Your task to perform on an android device: Search for the best custom wallets on Etsy. Image 0: 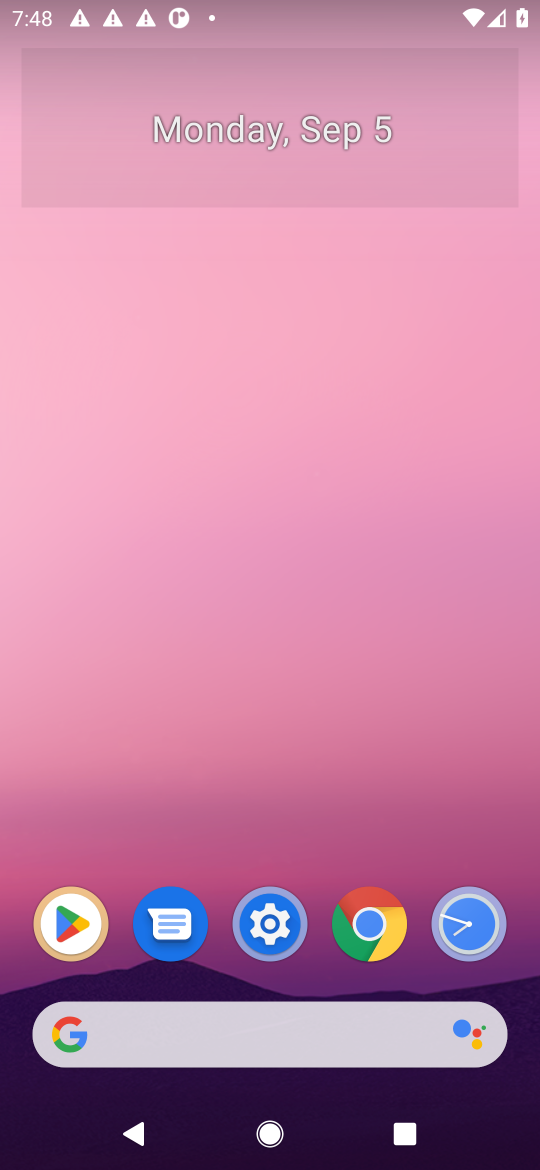
Step 0: press home button
Your task to perform on an android device: Search for the best custom wallets on Etsy. Image 1: 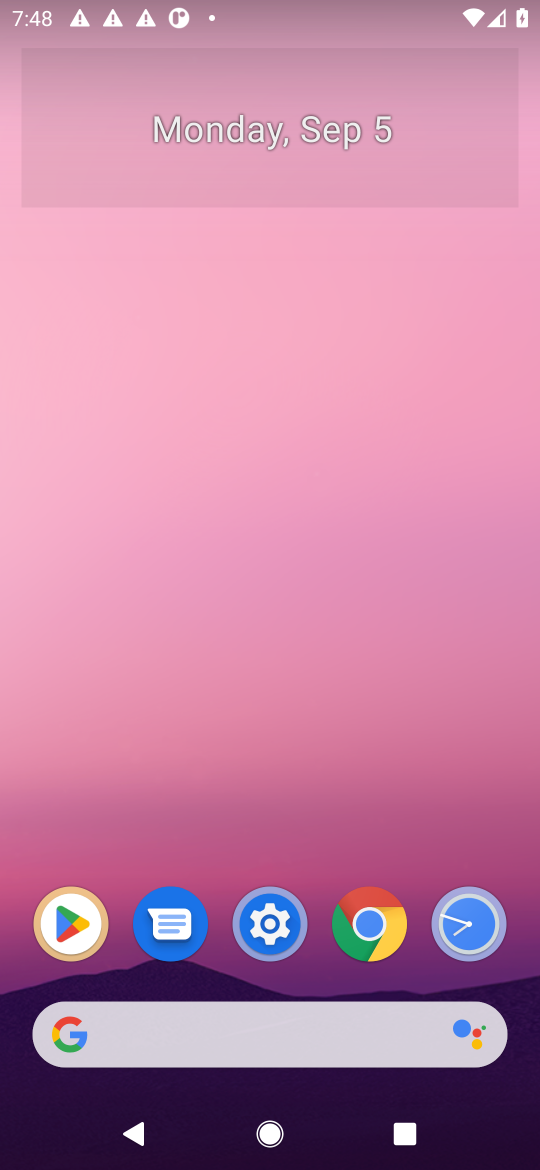
Step 1: click (332, 1037)
Your task to perform on an android device: Search for the best custom wallets on Etsy. Image 2: 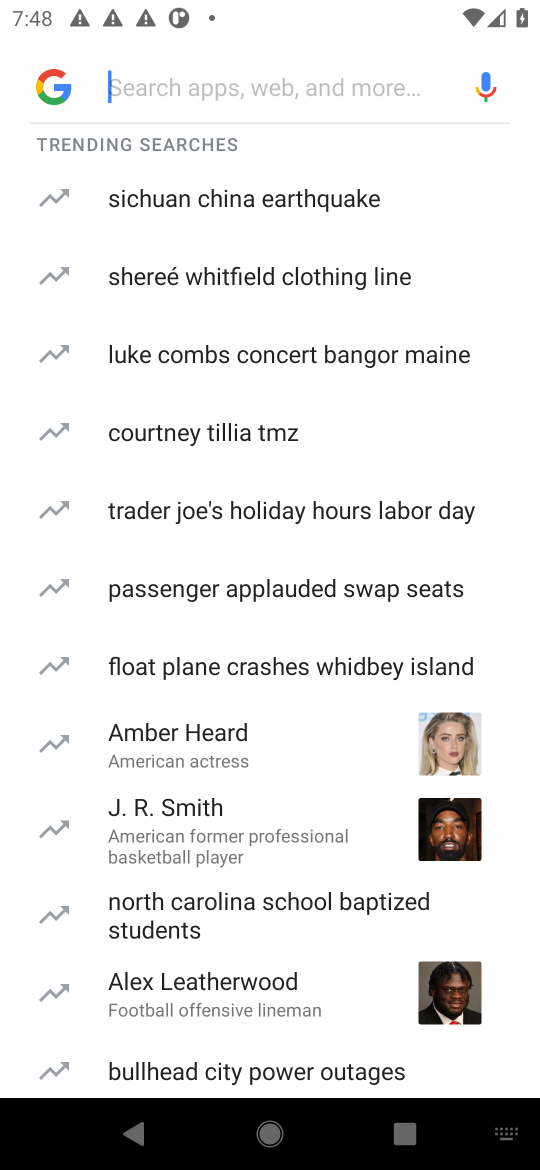
Step 2: press enter
Your task to perform on an android device: Search for the best custom wallets on Etsy. Image 3: 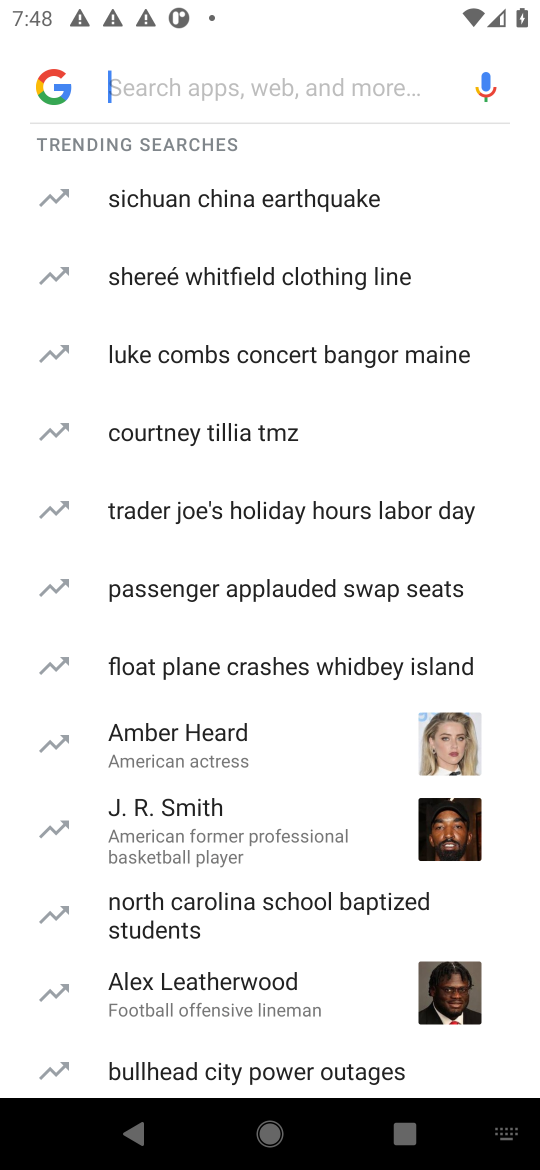
Step 3: type "etsy"
Your task to perform on an android device: Search for the best custom wallets on Etsy. Image 4: 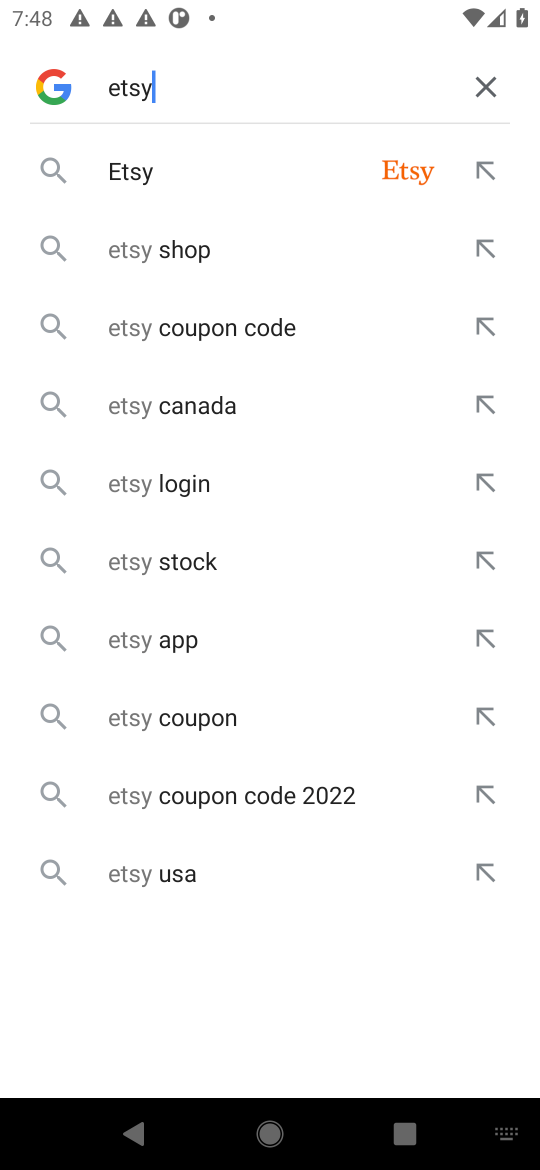
Step 4: click (219, 162)
Your task to perform on an android device: Search for the best custom wallets on Etsy. Image 5: 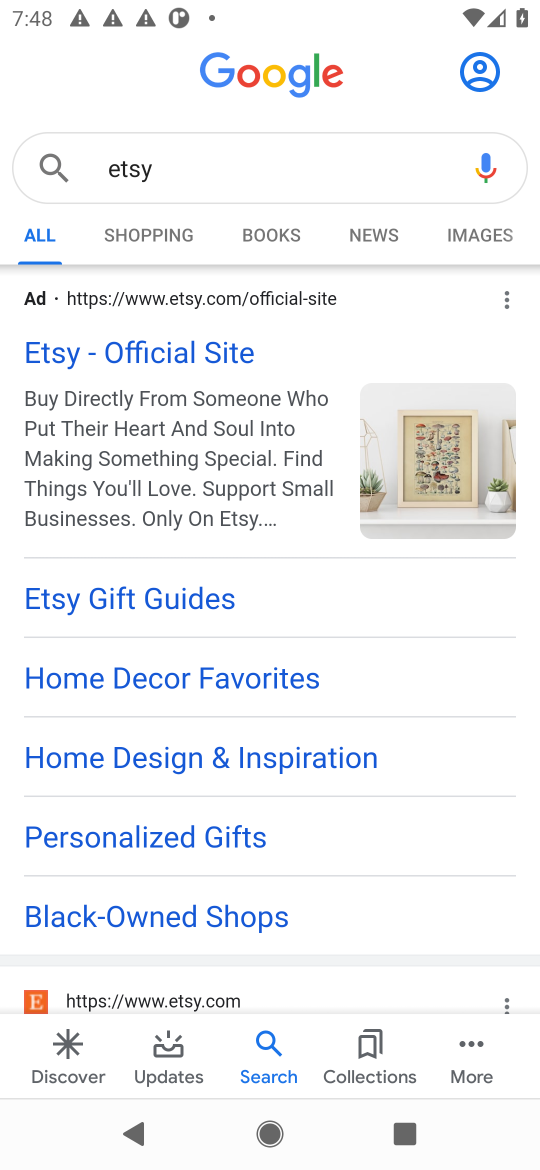
Step 5: click (159, 353)
Your task to perform on an android device: Search for the best custom wallets on Etsy. Image 6: 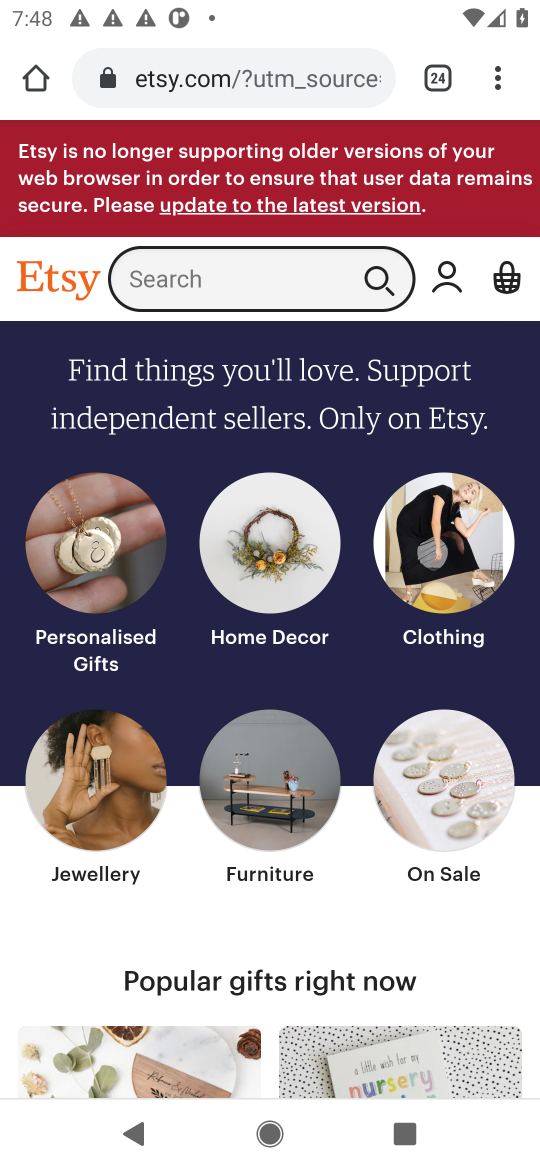
Step 6: click (155, 278)
Your task to perform on an android device: Search for the best custom wallets on Etsy. Image 7: 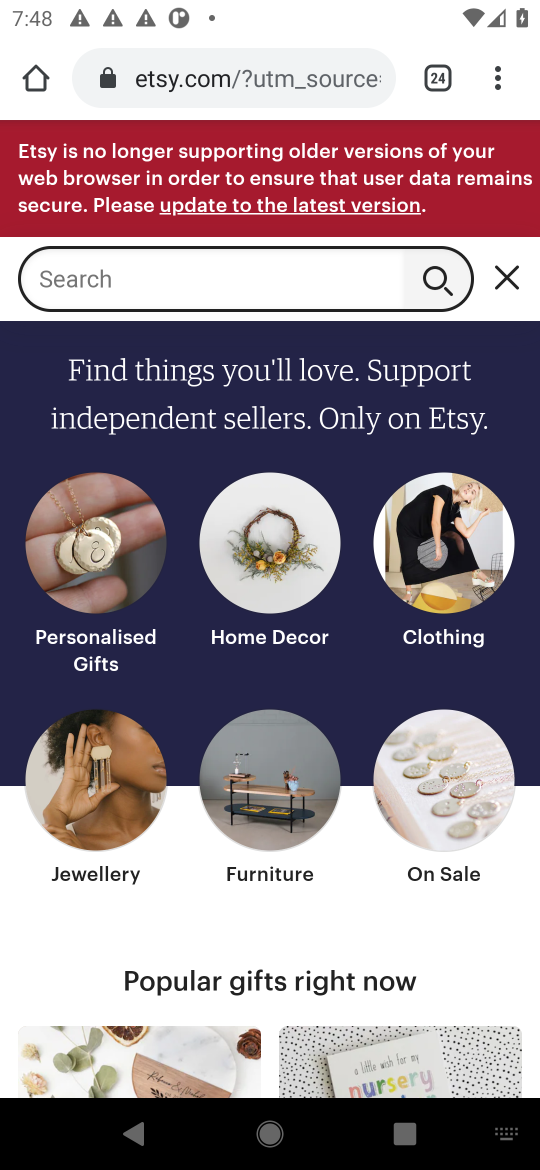
Step 7: type "best custom wallets"
Your task to perform on an android device: Search for the best custom wallets on Etsy. Image 8: 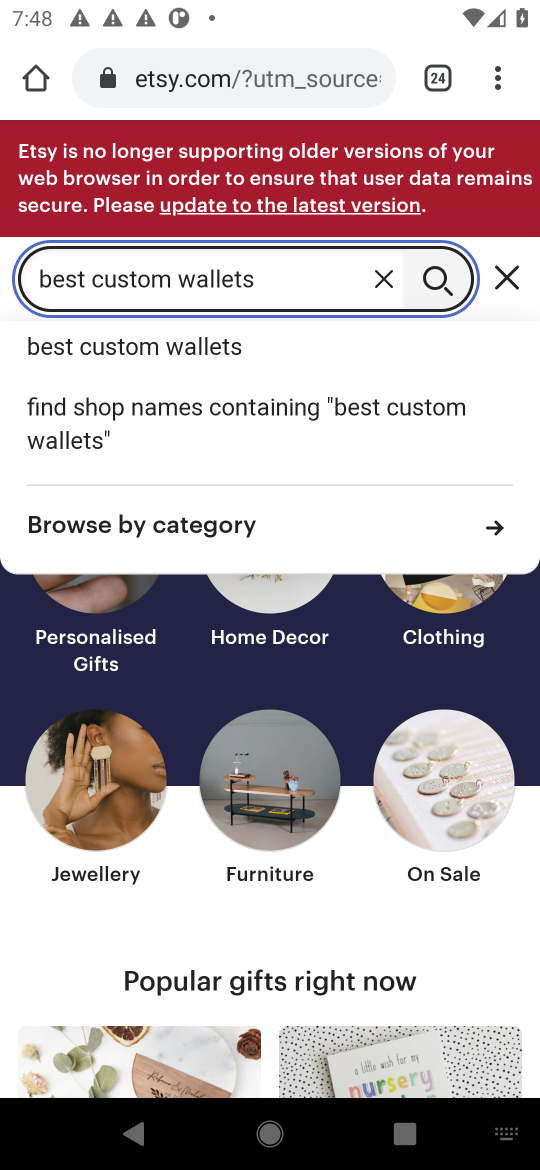
Step 8: click (224, 352)
Your task to perform on an android device: Search for the best custom wallets on Etsy. Image 9: 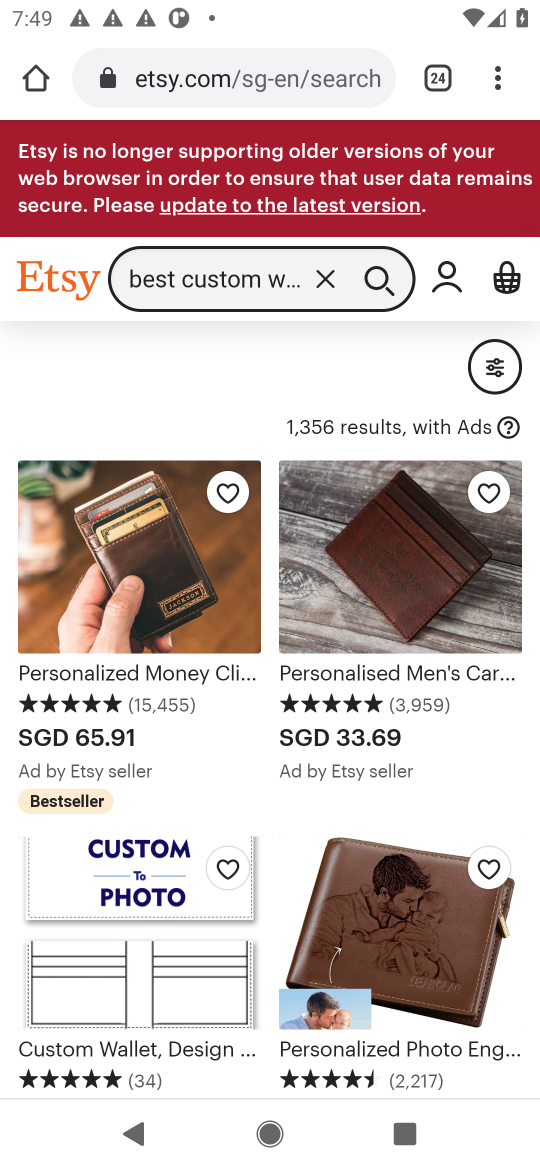
Step 9: task complete